Your task to perform on an android device: Open the calculator Image 0: 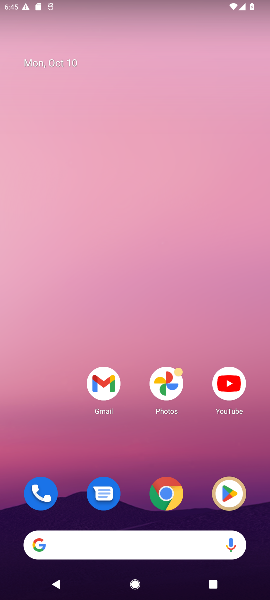
Step 0: task impossible